Your task to perform on an android device: open chrome privacy settings Image 0: 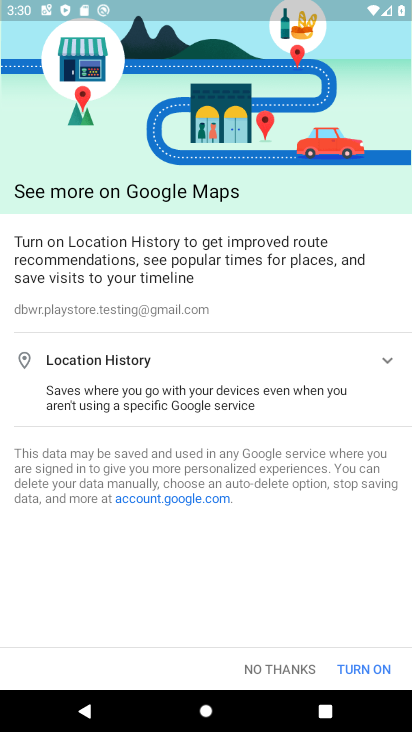
Step 0: press home button
Your task to perform on an android device: open chrome privacy settings Image 1: 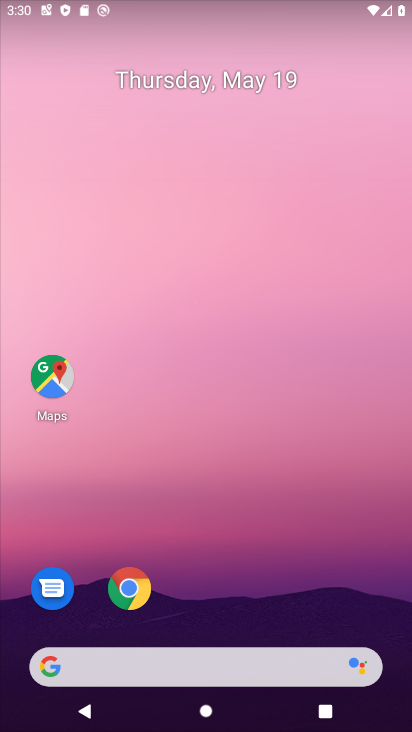
Step 1: click (129, 586)
Your task to perform on an android device: open chrome privacy settings Image 2: 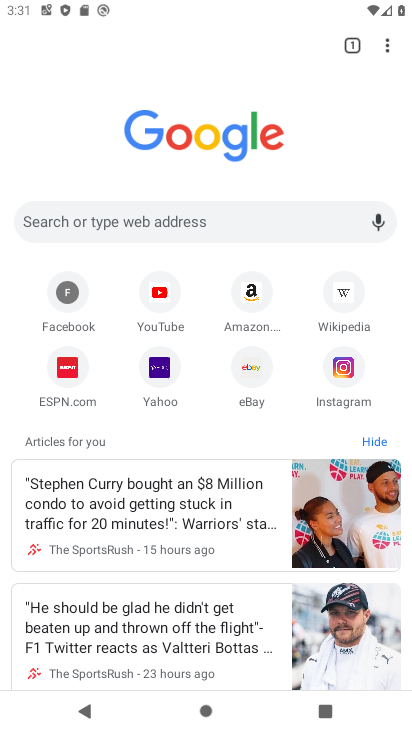
Step 2: click (393, 35)
Your task to perform on an android device: open chrome privacy settings Image 3: 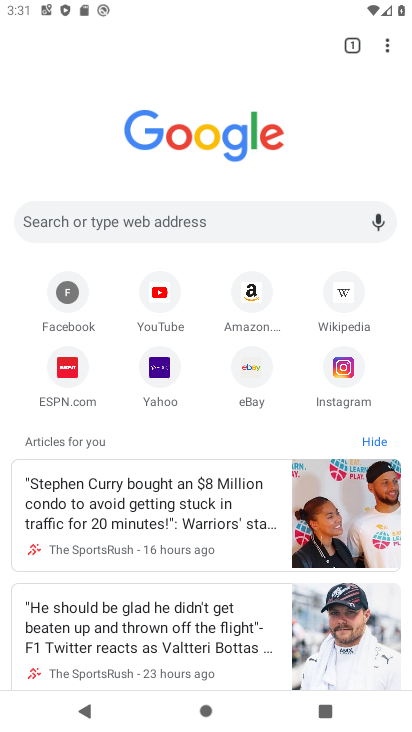
Step 3: click (385, 43)
Your task to perform on an android device: open chrome privacy settings Image 4: 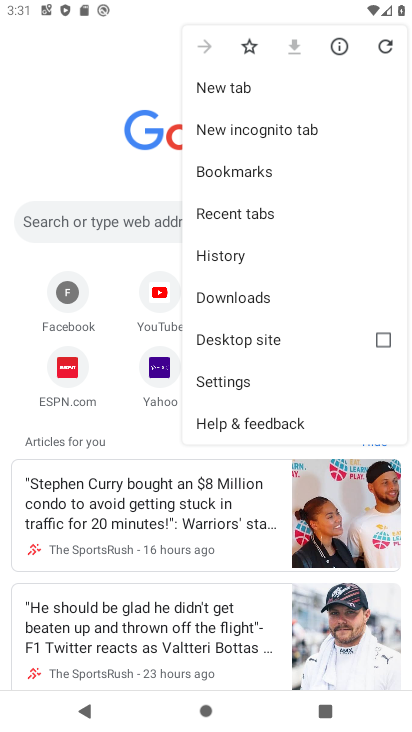
Step 4: click (246, 392)
Your task to perform on an android device: open chrome privacy settings Image 5: 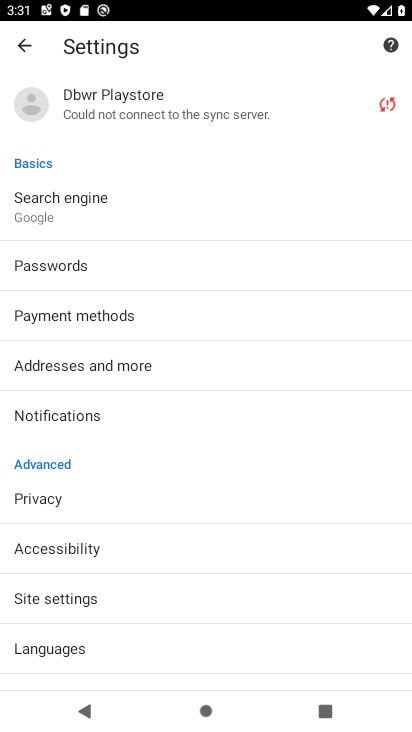
Step 5: drag from (141, 639) to (189, 512)
Your task to perform on an android device: open chrome privacy settings Image 6: 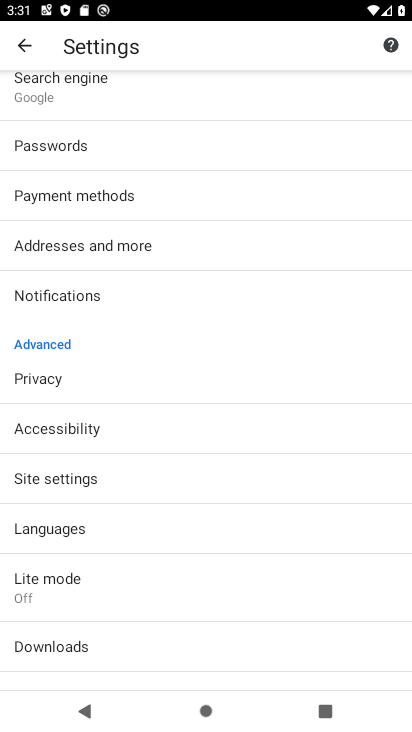
Step 6: click (77, 385)
Your task to perform on an android device: open chrome privacy settings Image 7: 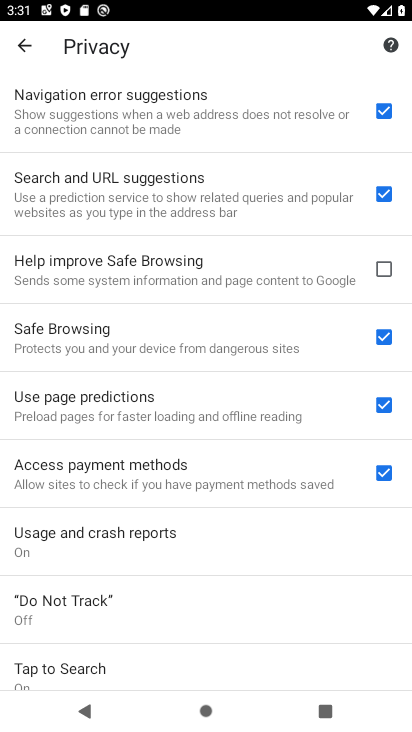
Step 7: task complete